Your task to perform on an android device: What's on my calendar tomorrow? Image 0: 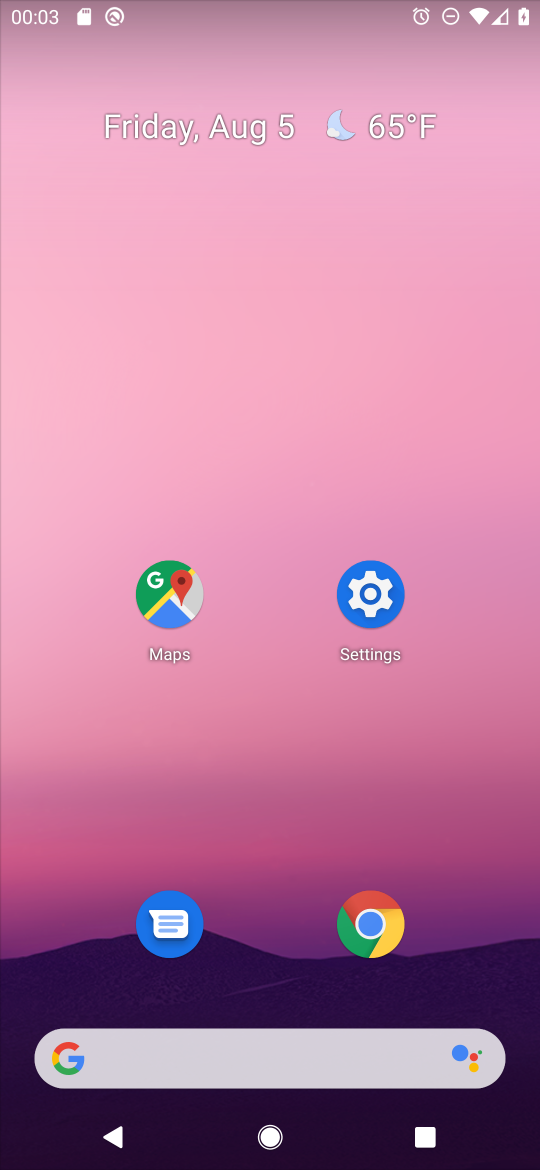
Step 0: press home button
Your task to perform on an android device: What's on my calendar tomorrow? Image 1: 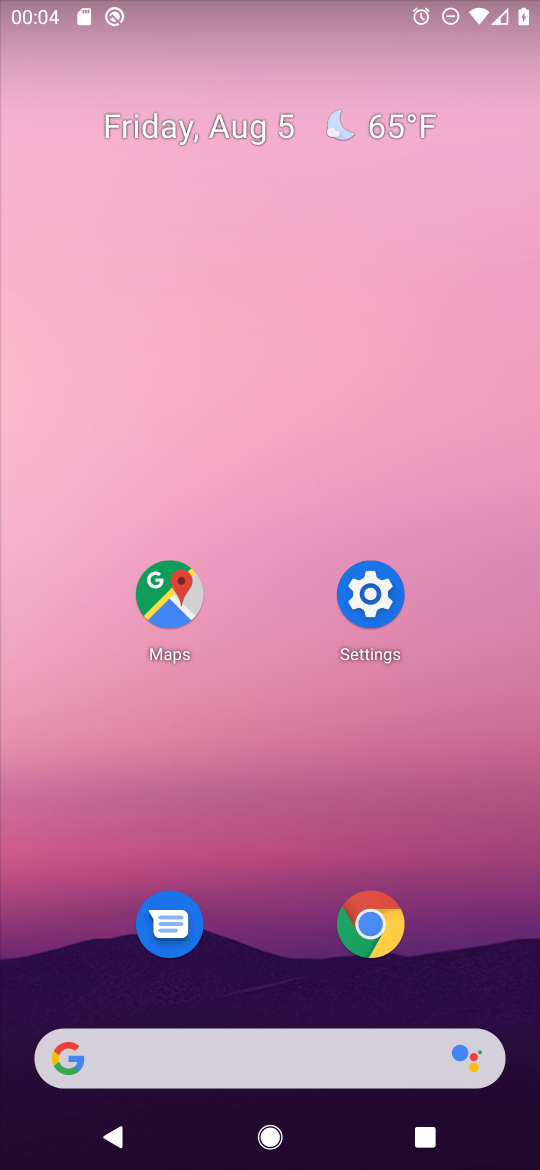
Step 1: drag from (348, 1037) to (474, 544)
Your task to perform on an android device: What's on my calendar tomorrow? Image 2: 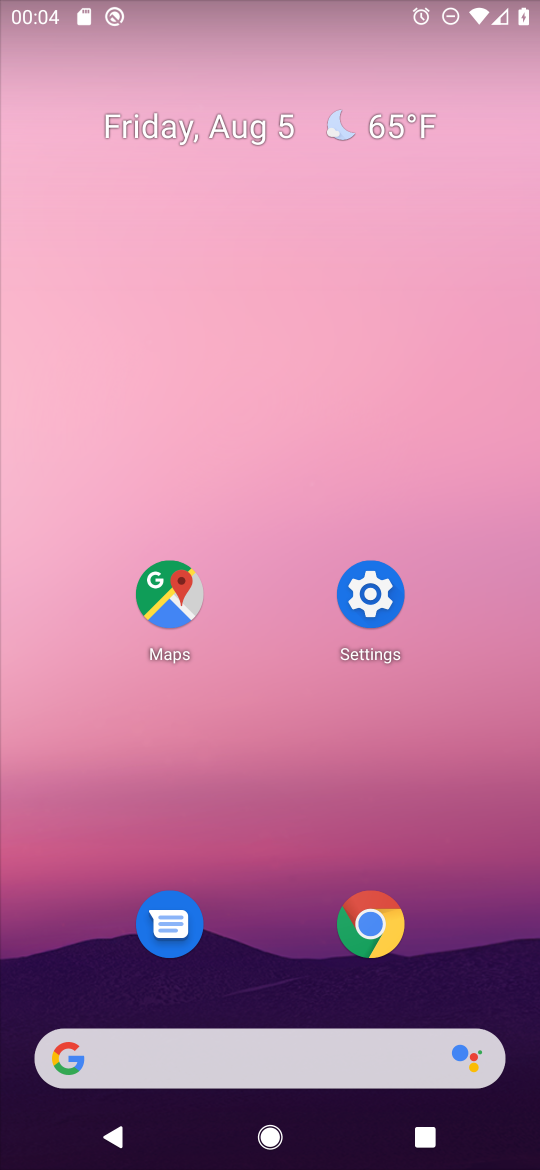
Step 2: drag from (263, 1046) to (444, 315)
Your task to perform on an android device: What's on my calendar tomorrow? Image 3: 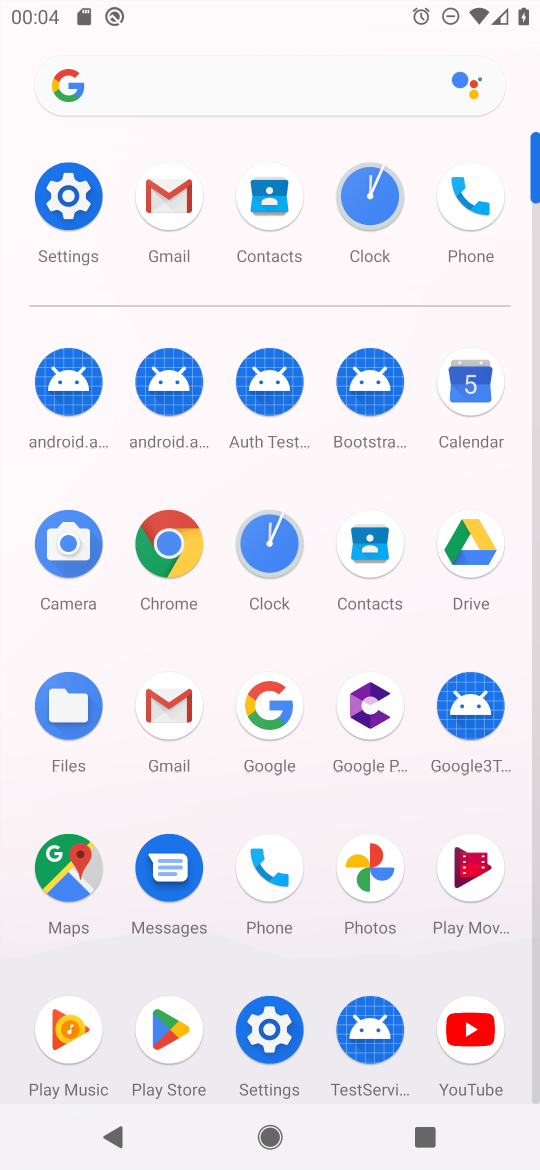
Step 3: click (473, 386)
Your task to perform on an android device: What's on my calendar tomorrow? Image 4: 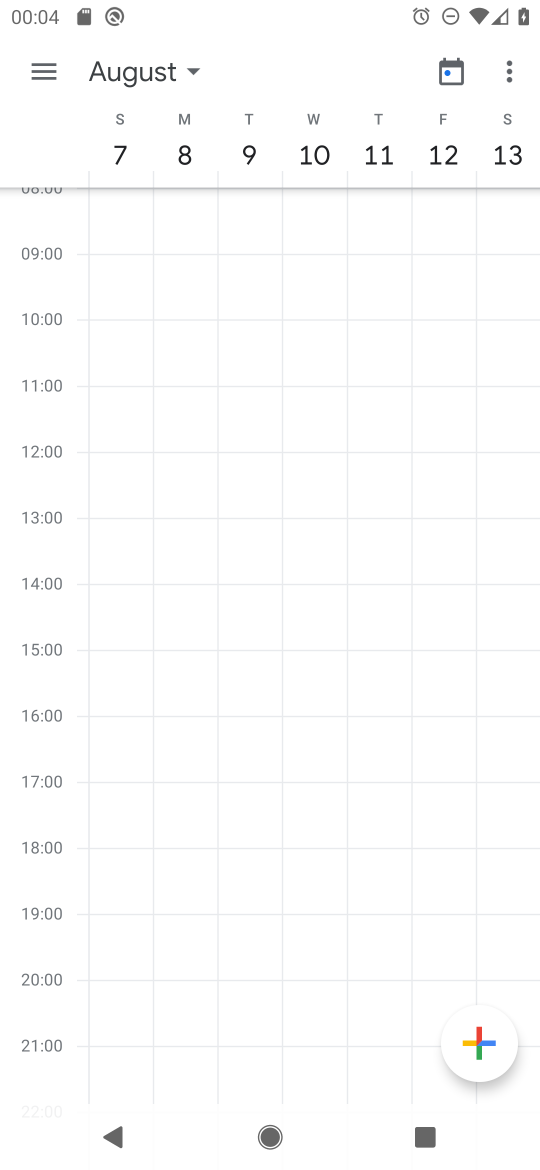
Step 4: click (126, 63)
Your task to perform on an android device: What's on my calendar tomorrow? Image 5: 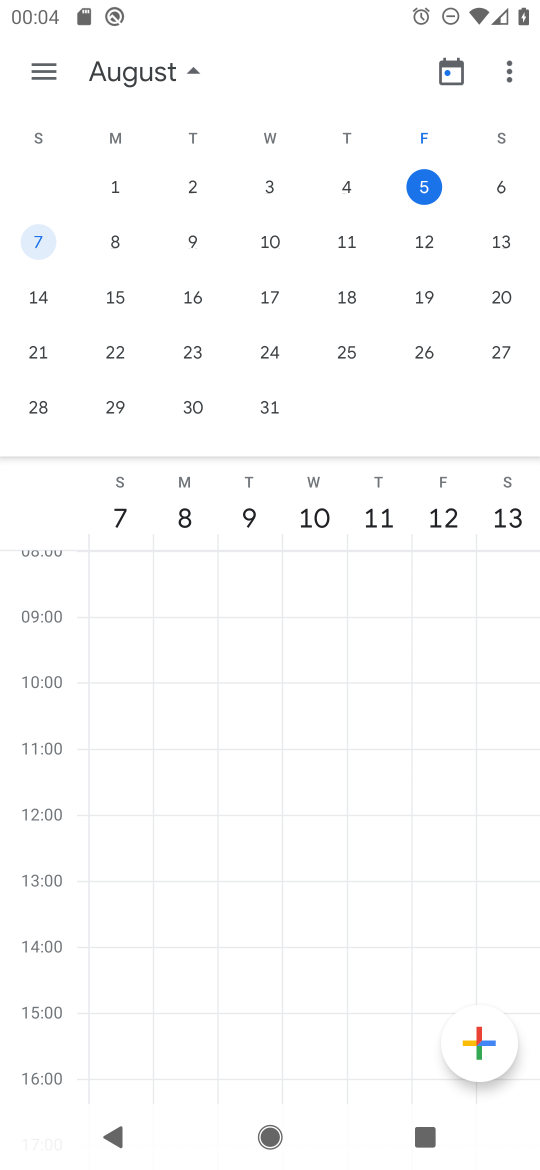
Step 5: click (499, 188)
Your task to perform on an android device: What's on my calendar tomorrow? Image 6: 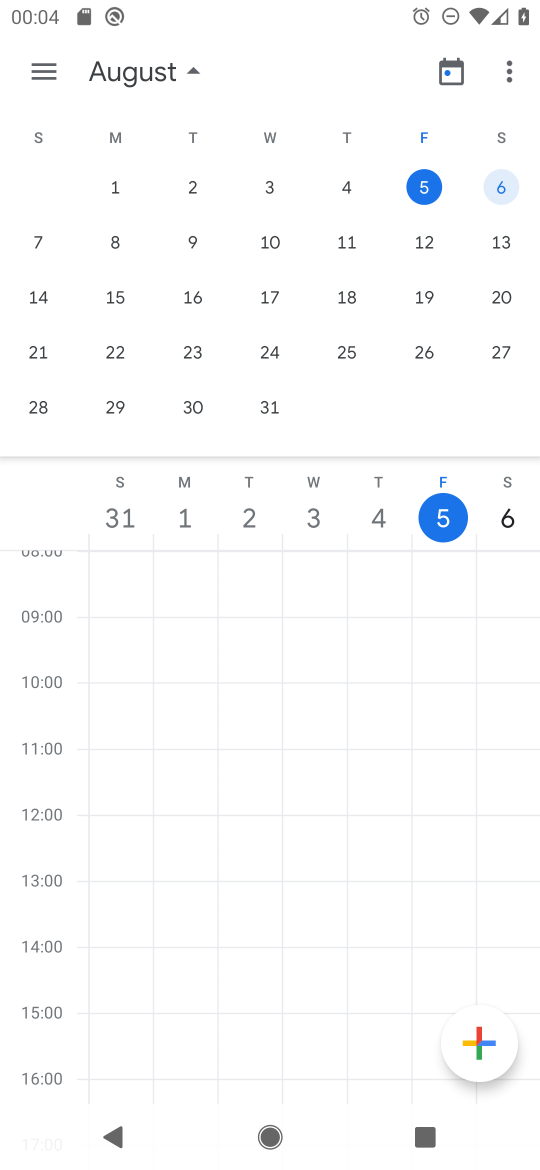
Step 6: click (48, 66)
Your task to perform on an android device: What's on my calendar tomorrow? Image 7: 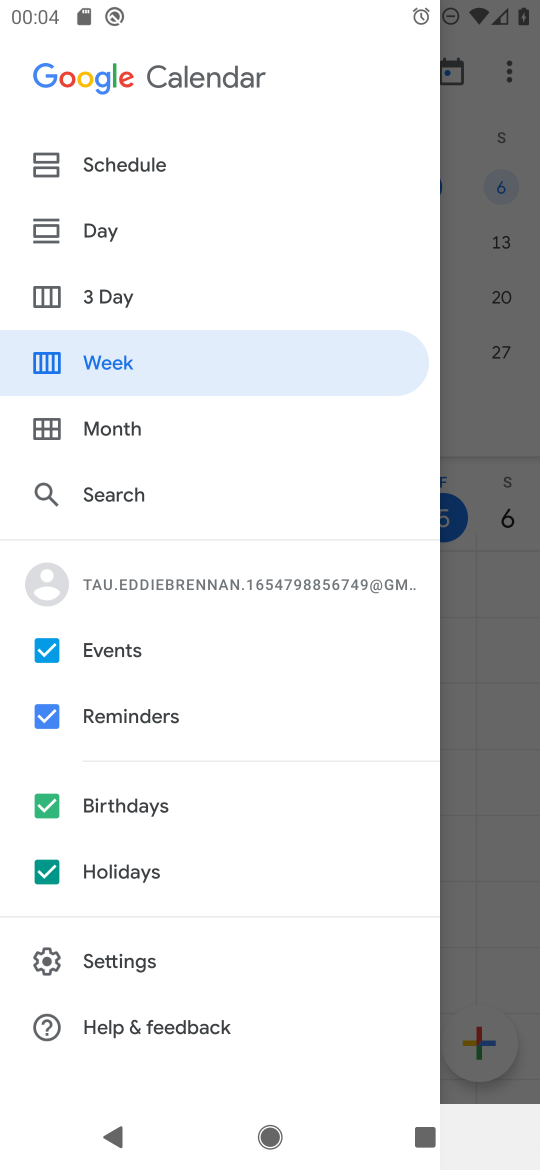
Step 7: click (98, 229)
Your task to perform on an android device: What's on my calendar tomorrow? Image 8: 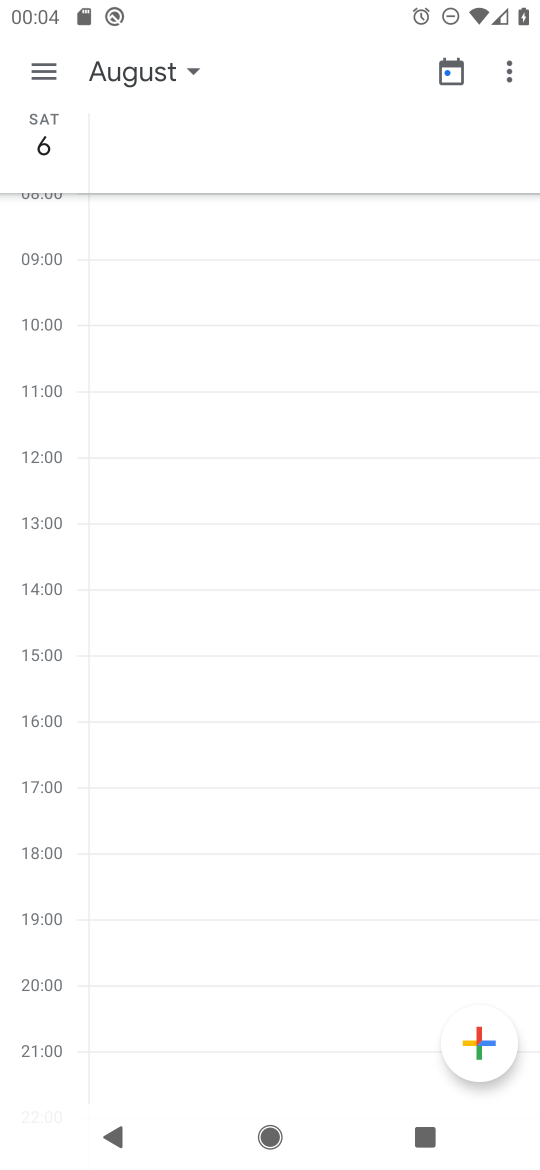
Step 8: click (43, 82)
Your task to perform on an android device: What's on my calendar tomorrow? Image 9: 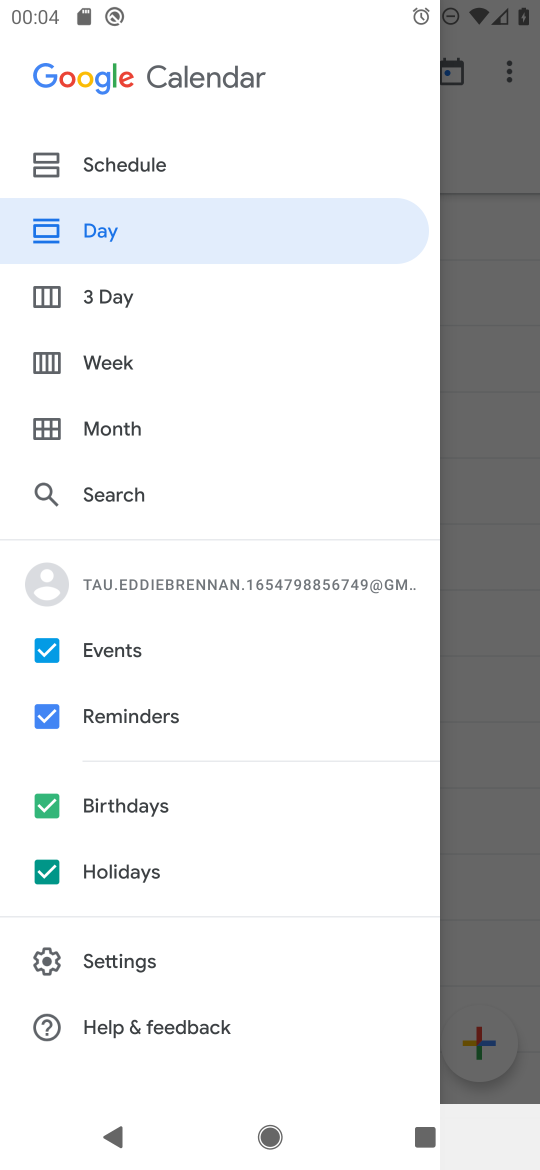
Step 9: click (150, 166)
Your task to perform on an android device: What's on my calendar tomorrow? Image 10: 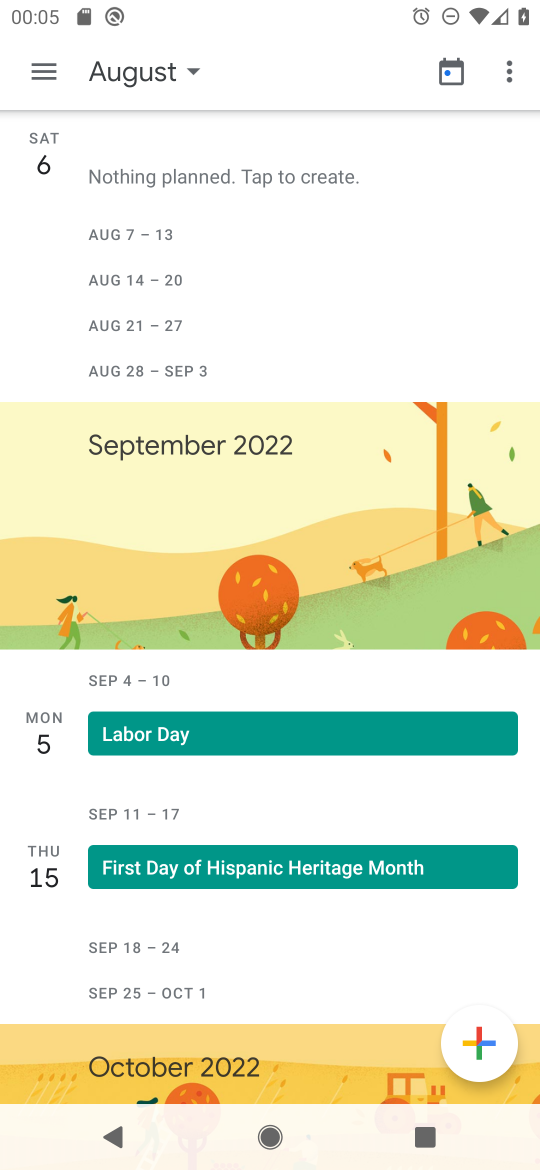
Step 10: task complete